Your task to perform on an android device: toggle sleep mode Image 0: 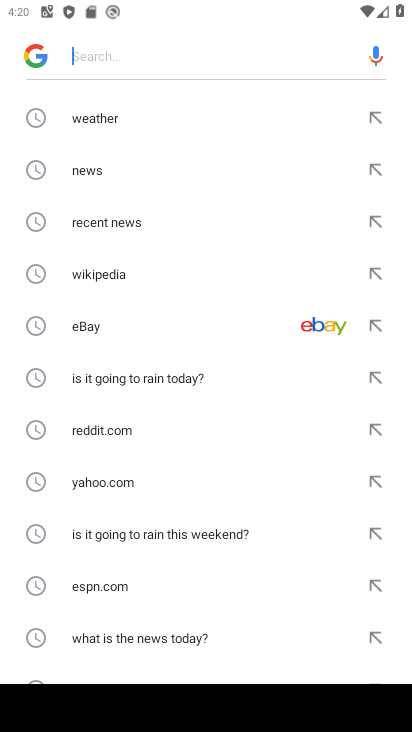
Step 0: press back button
Your task to perform on an android device: toggle sleep mode Image 1: 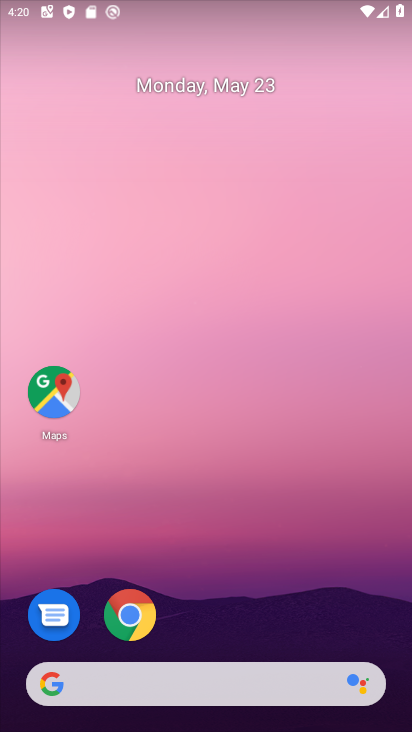
Step 1: drag from (239, 566) to (269, 48)
Your task to perform on an android device: toggle sleep mode Image 2: 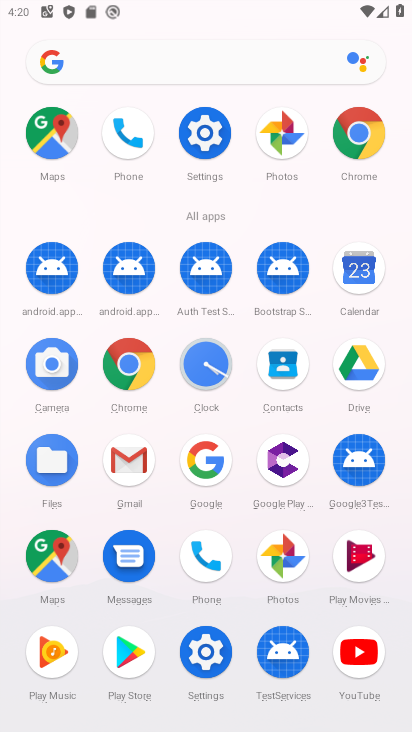
Step 2: click (209, 126)
Your task to perform on an android device: toggle sleep mode Image 3: 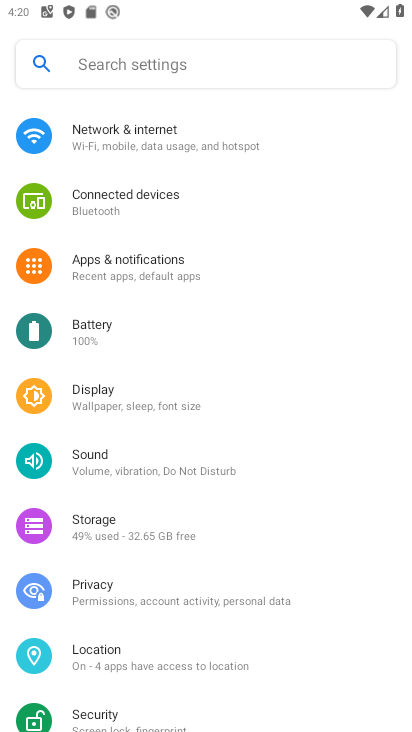
Step 3: click (112, 61)
Your task to perform on an android device: toggle sleep mode Image 4: 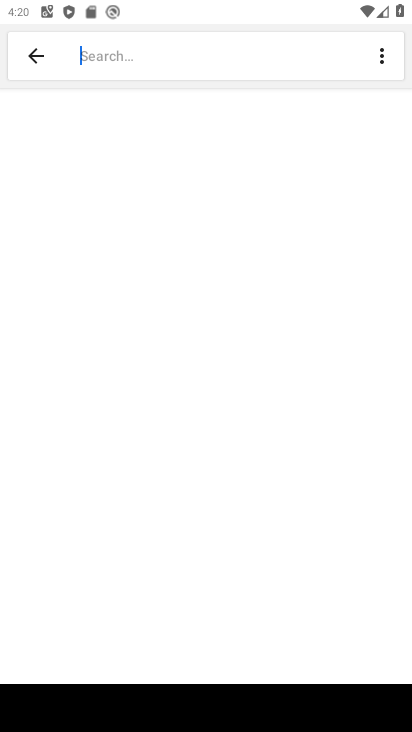
Step 4: type "sleep mode"
Your task to perform on an android device: toggle sleep mode Image 5: 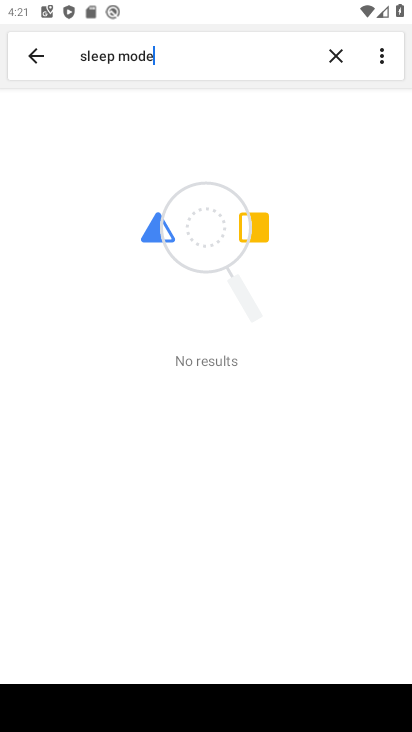
Step 5: task complete